Your task to perform on an android device: Go to Amazon Image 0: 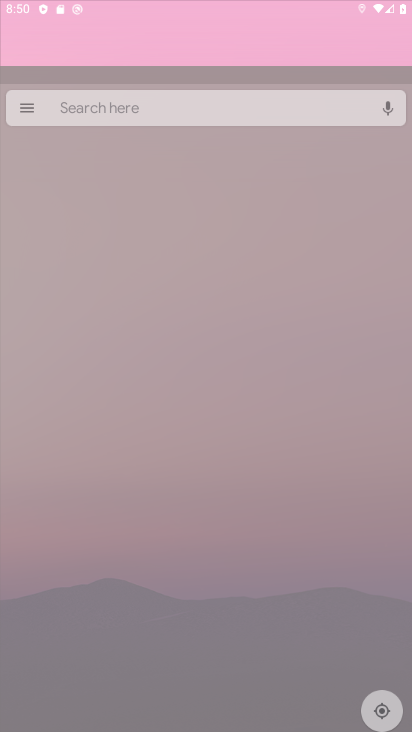
Step 0: drag from (199, 485) to (206, 3)
Your task to perform on an android device: Go to Amazon Image 1: 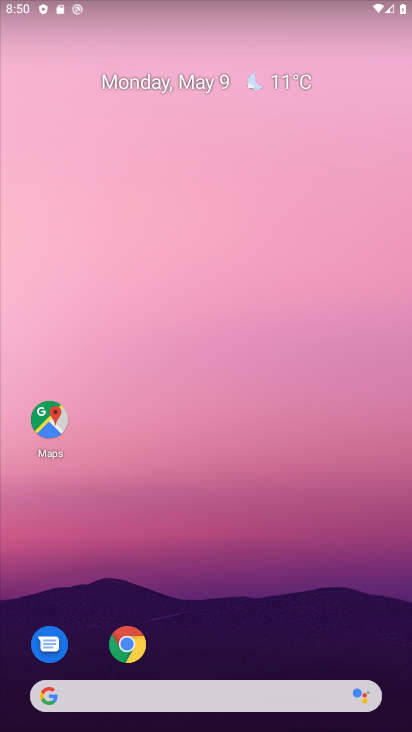
Step 1: click (125, 662)
Your task to perform on an android device: Go to Amazon Image 2: 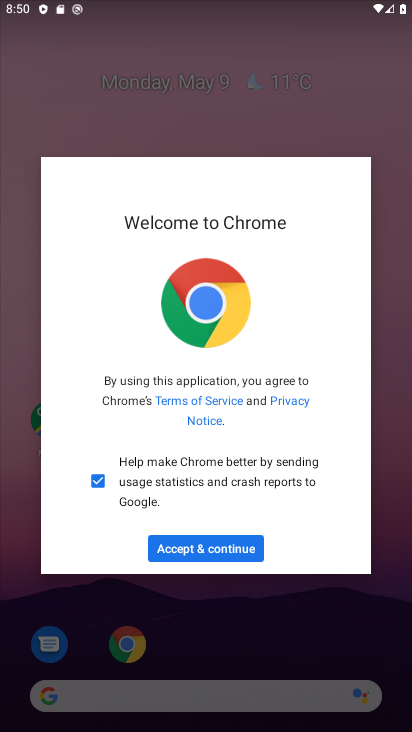
Step 2: click (231, 541)
Your task to perform on an android device: Go to Amazon Image 3: 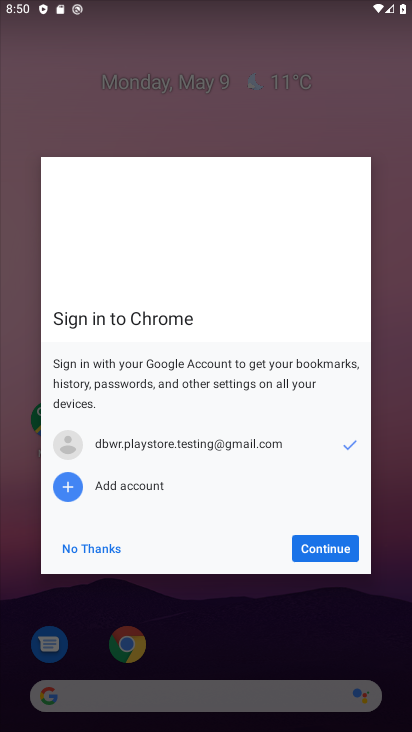
Step 3: click (302, 545)
Your task to perform on an android device: Go to Amazon Image 4: 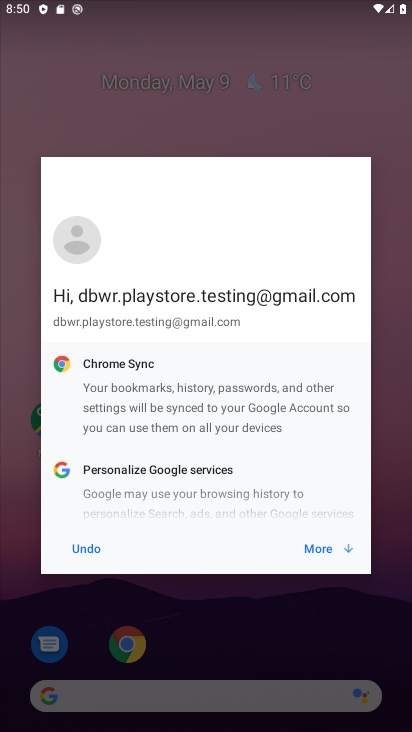
Step 4: click (305, 548)
Your task to perform on an android device: Go to Amazon Image 5: 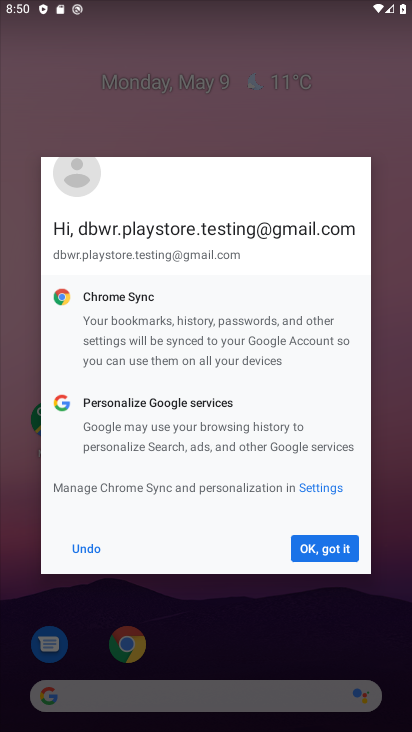
Step 5: click (305, 548)
Your task to perform on an android device: Go to Amazon Image 6: 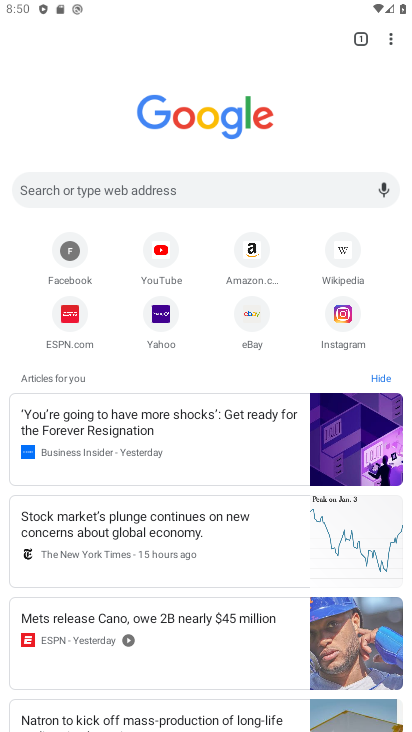
Step 6: click (251, 256)
Your task to perform on an android device: Go to Amazon Image 7: 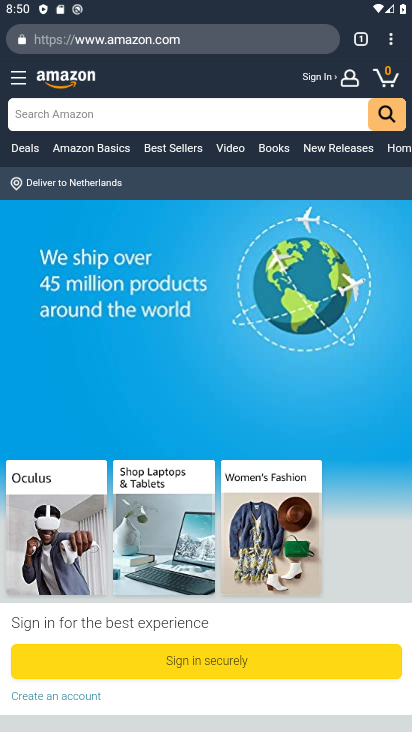
Step 7: task complete